Your task to perform on an android device: toggle pop-ups in chrome Image 0: 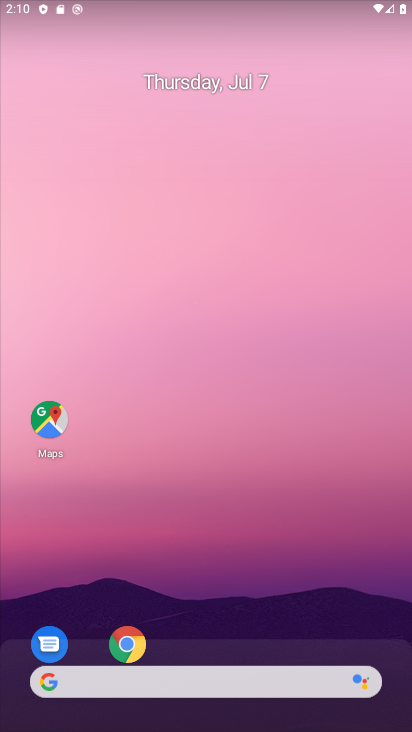
Step 0: click (139, 639)
Your task to perform on an android device: toggle pop-ups in chrome Image 1: 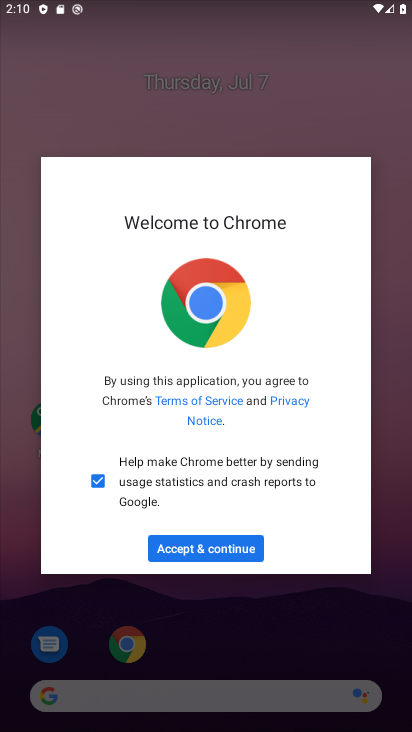
Step 1: click (223, 551)
Your task to perform on an android device: toggle pop-ups in chrome Image 2: 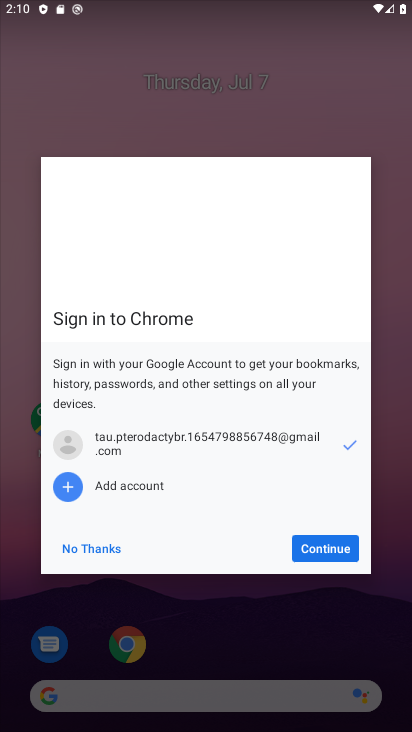
Step 2: click (335, 545)
Your task to perform on an android device: toggle pop-ups in chrome Image 3: 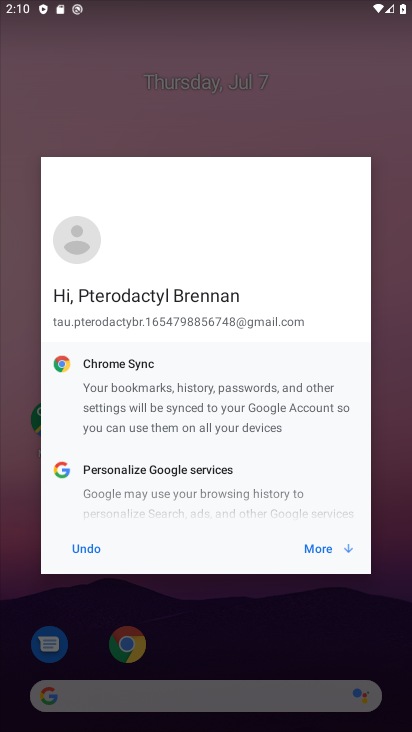
Step 3: click (335, 545)
Your task to perform on an android device: toggle pop-ups in chrome Image 4: 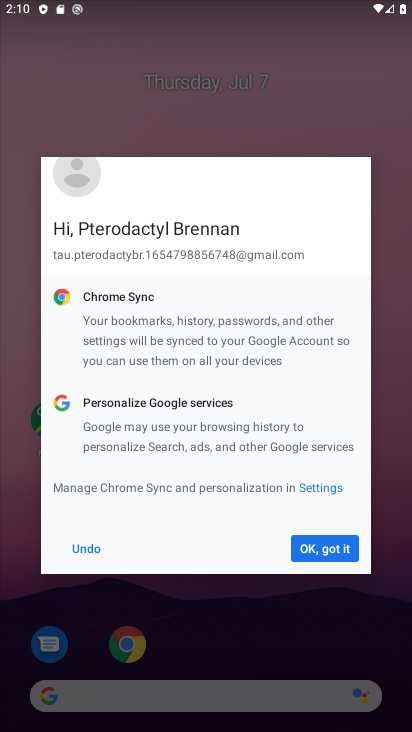
Step 4: click (335, 545)
Your task to perform on an android device: toggle pop-ups in chrome Image 5: 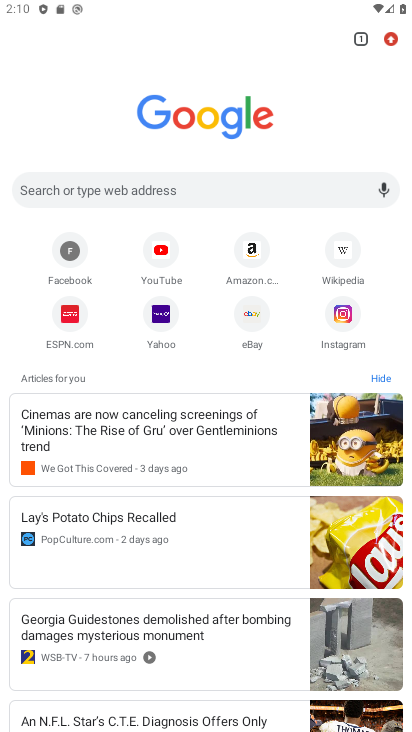
Step 5: drag from (392, 42) to (295, 361)
Your task to perform on an android device: toggle pop-ups in chrome Image 6: 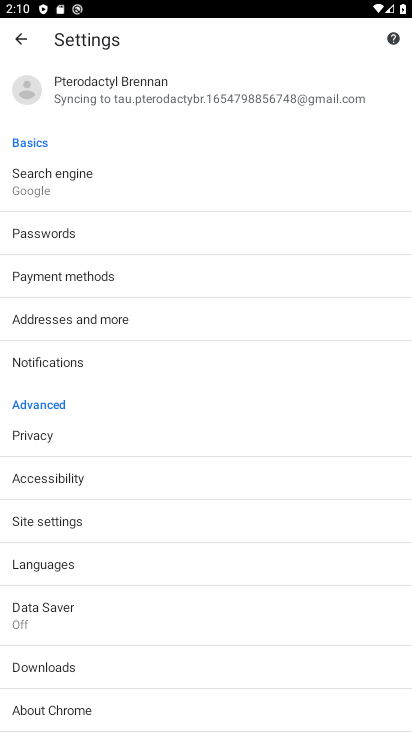
Step 6: click (111, 530)
Your task to perform on an android device: toggle pop-ups in chrome Image 7: 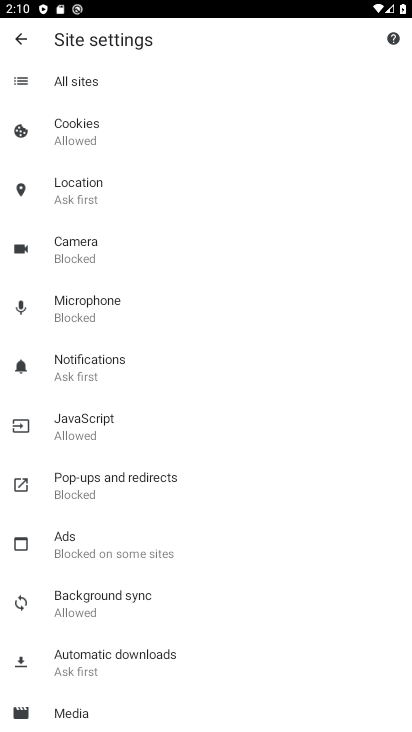
Step 7: click (120, 495)
Your task to perform on an android device: toggle pop-ups in chrome Image 8: 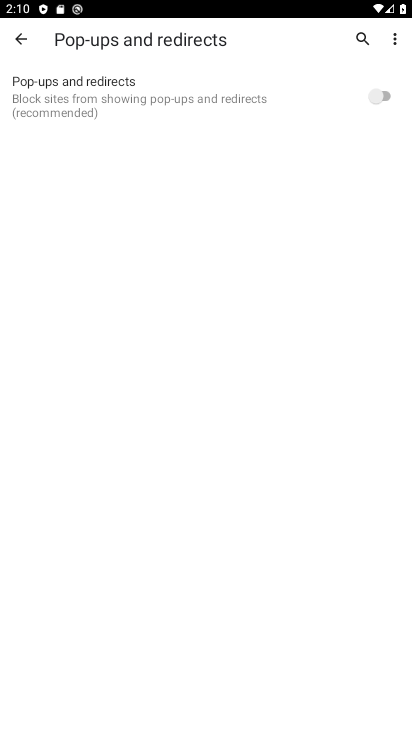
Step 8: click (400, 99)
Your task to perform on an android device: toggle pop-ups in chrome Image 9: 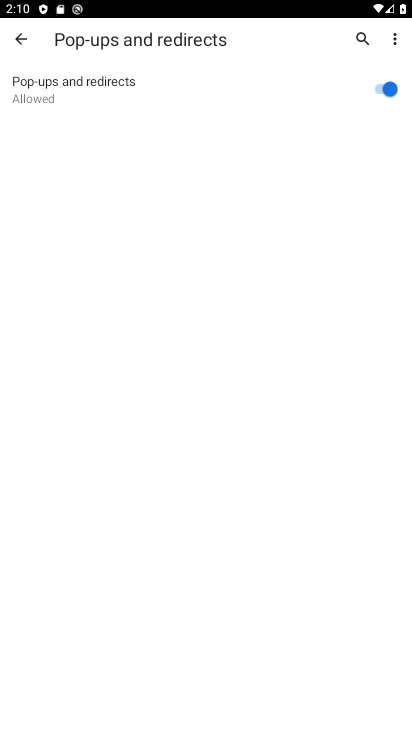
Step 9: task complete